Your task to perform on an android device: toggle data saver in the chrome app Image 0: 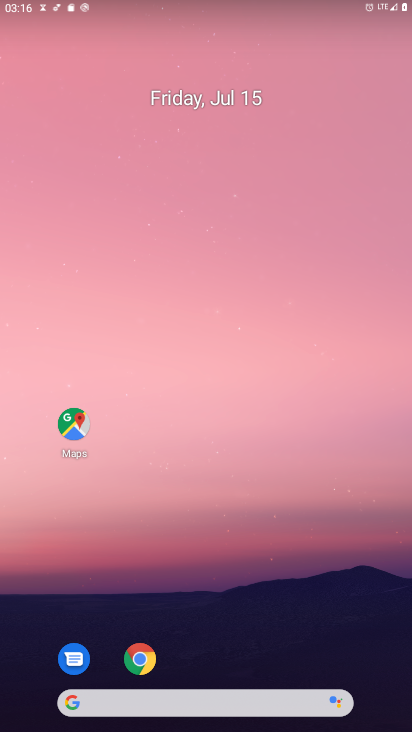
Step 0: drag from (96, 633) to (162, 251)
Your task to perform on an android device: toggle data saver in the chrome app Image 1: 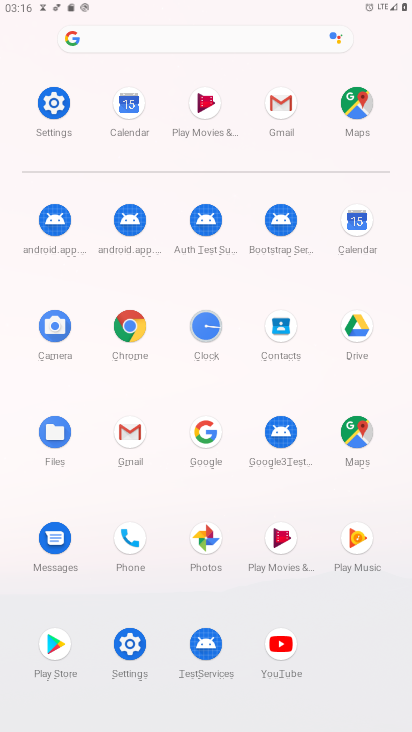
Step 1: click (115, 330)
Your task to perform on an android device: toggle data saver in the chrome app Image 2: 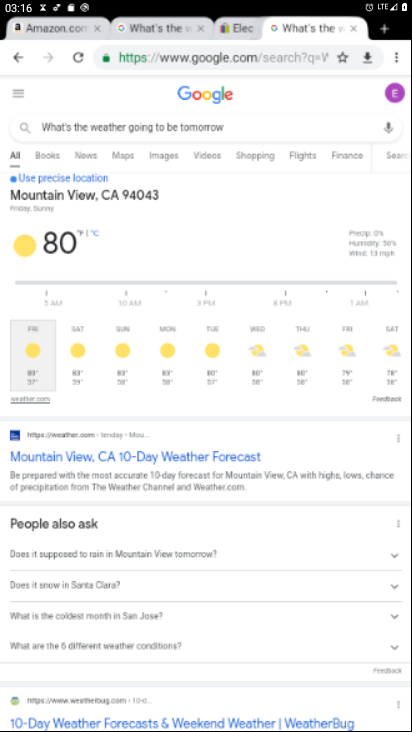
Step 2: click (396, 50)
Your task to perform on an android device: toggle data saver in the chrome app Image 3: 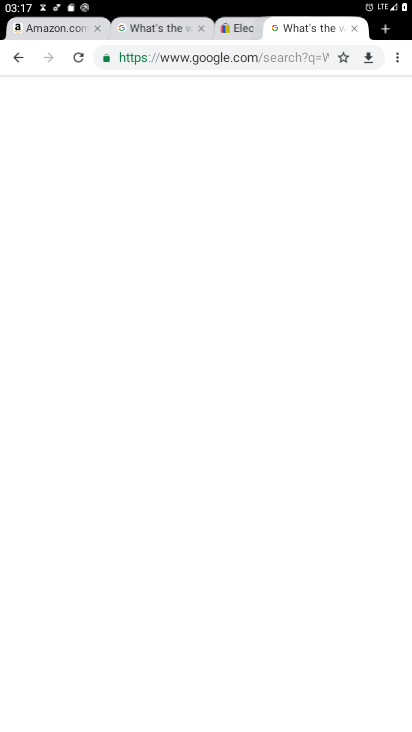
Step 3: click (389, 52)
Your task to perform on an android device: toggle data saver in the chrome app Image 4: 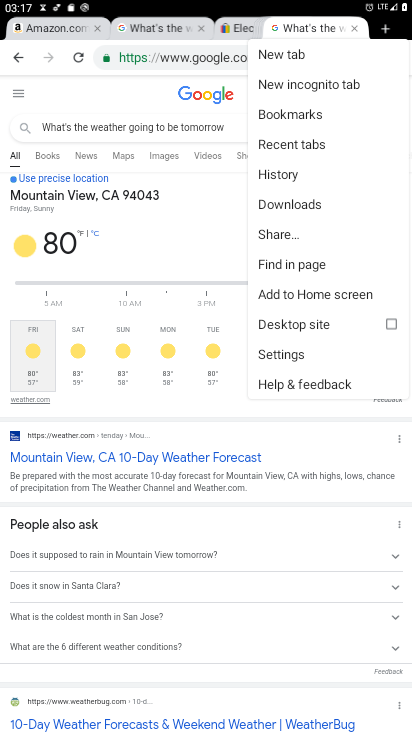
Step 4: click (287, 365)
Your task to perform on an android device: toggle data saver in the chrome app Image 5: 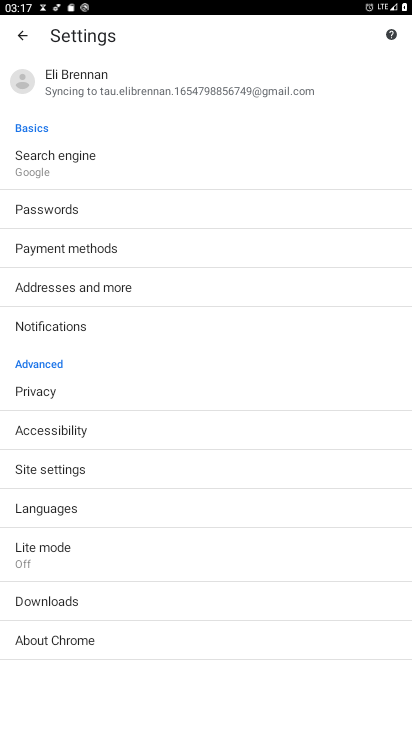
Step 5: click (36, 542)
Your task to perform on an android device: toggle data saver in the chrome app Image 6: 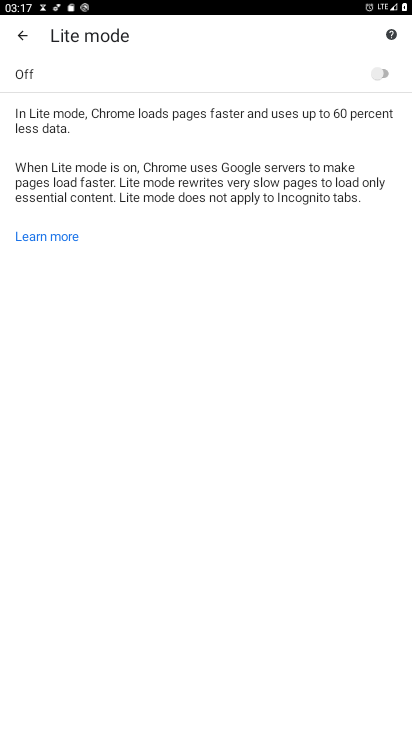
Step 6: click (385, 66)
Your task to perform on an android device: toggle data saver in the chrome app Image 7: 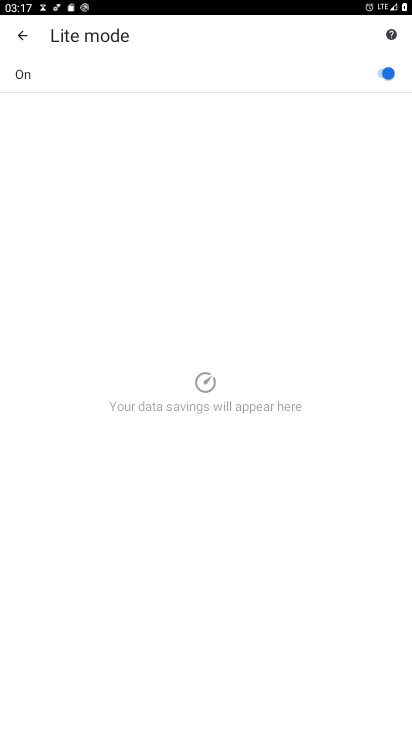
Step 7: task complete